Your task to perform on an android device: add a contact Image 0: 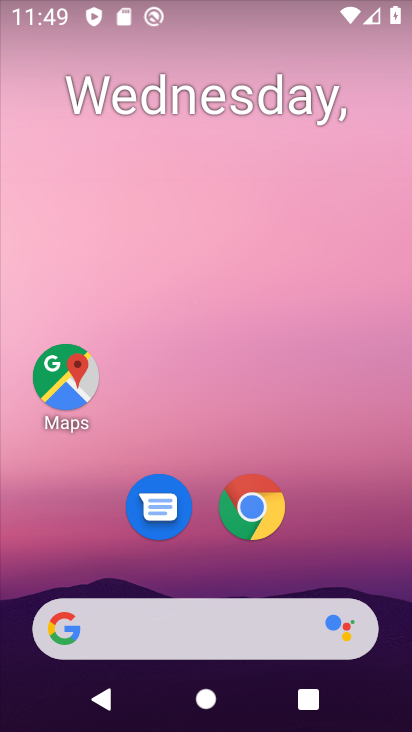
Step 0: drag from (233, 583) to (232, 229)
Your task to perform on an android device: add a contact Image 1: 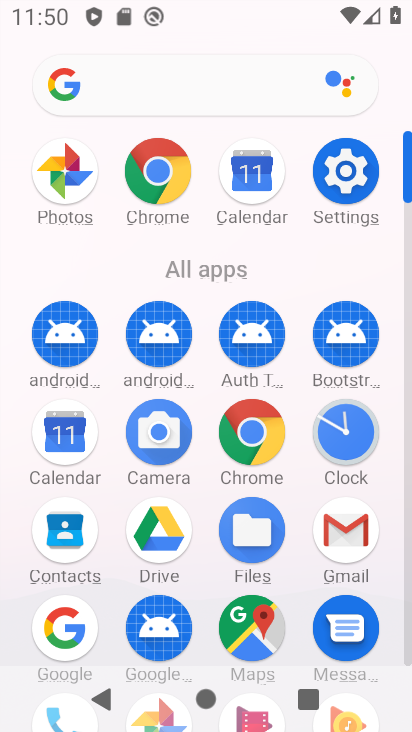
Step 1: click (77, 535)
Your task to perform on an android device: add a contact Image 2: 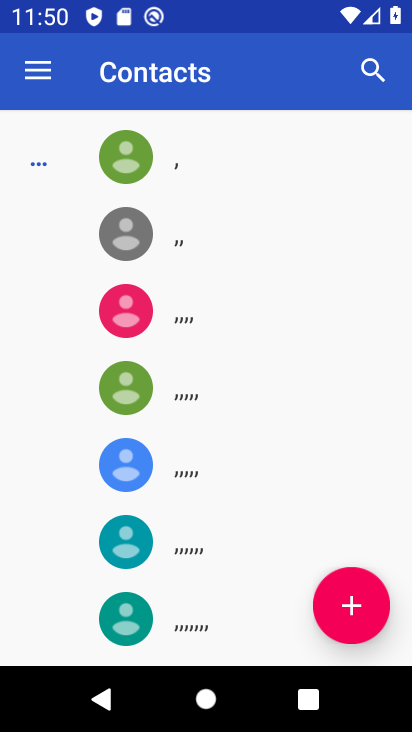
Step 2: click (349, 614)
Your task to perform on an android device: add a contact Image 3: 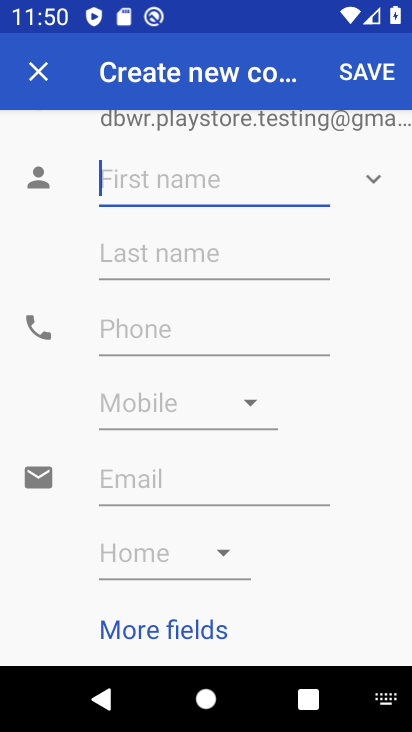
Step 3: type "dftyyghg"
Your task to perform on an android device: add a contact Image 4: 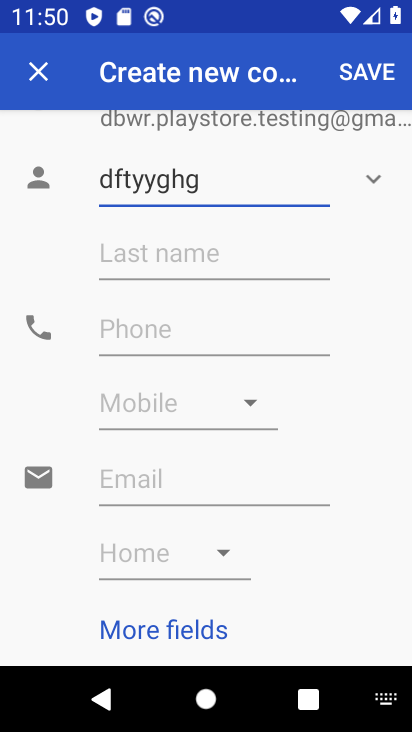
Step 4: click (204, 325)
Your task to perform on an android device: add a contact Image 5: 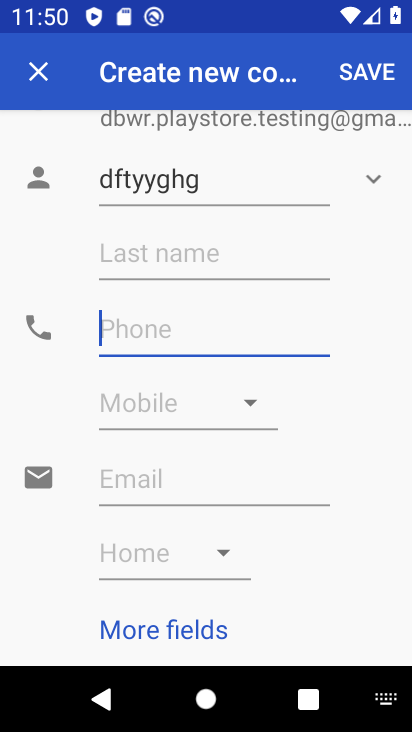
Step 5: type "89889799899"
Your task to perform on an android device: add a contact Image 6: 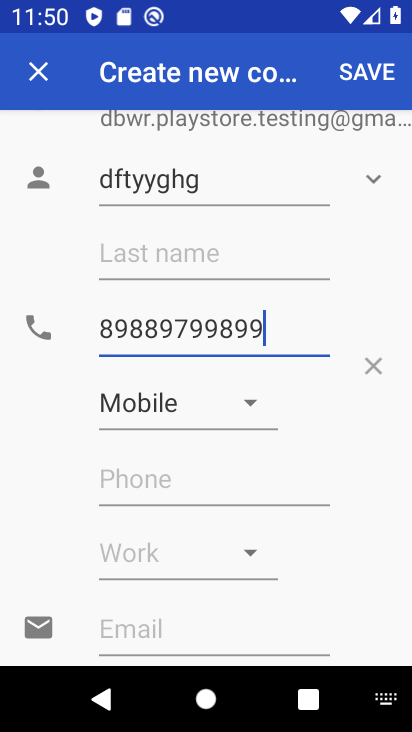
Step 6: click (389, 72)
Your task to perform on an android device: add a contact Image 7: 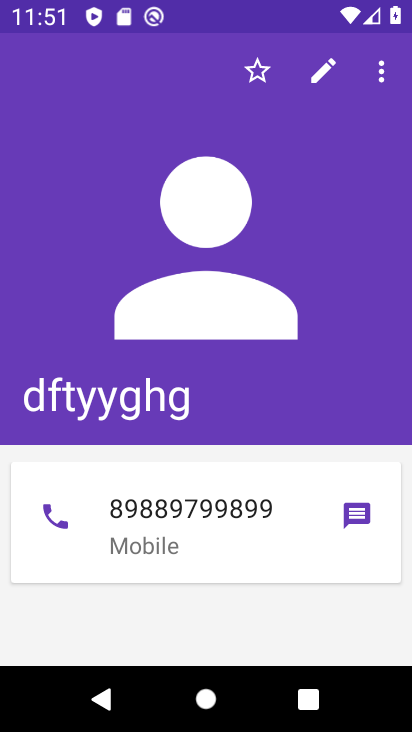
Step 7: task complete